Your task to perform on an android device: Open settings on Google Maps Image 0: 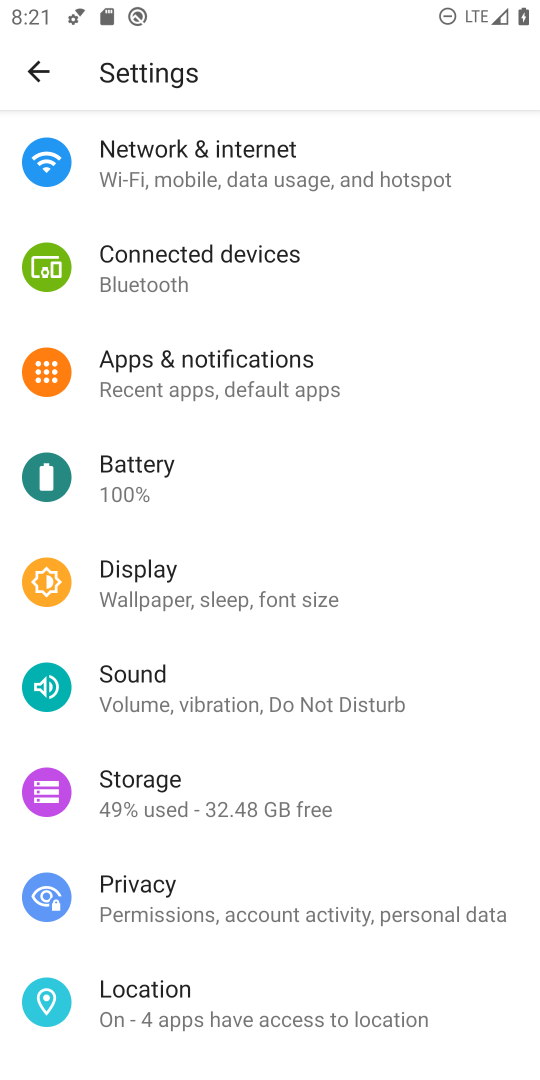
Step 0: press home button
Your task to perform on an android device: Open settings on Google Maps Image 1: 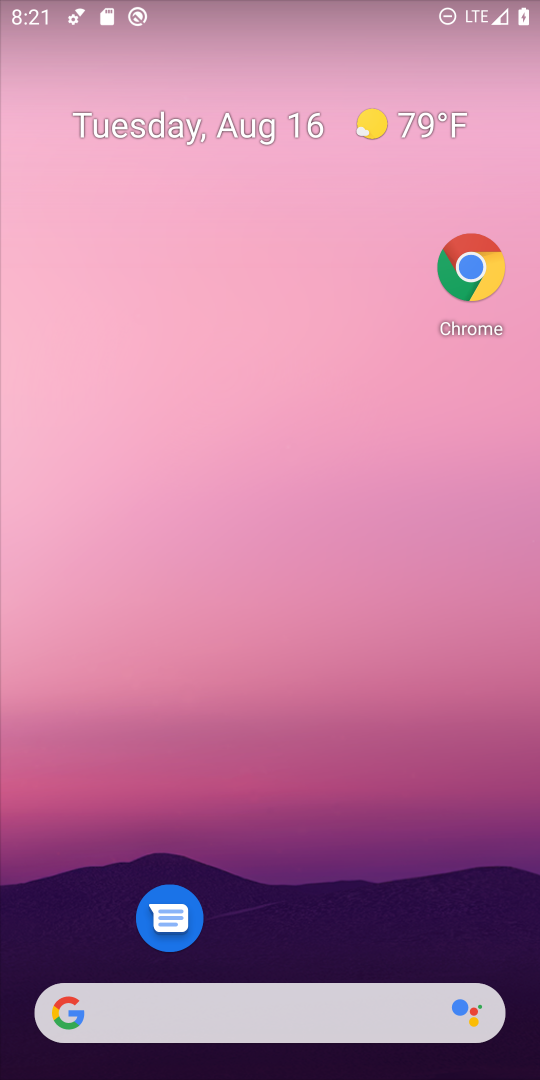
Step 1: drag from (374, 1046) to (351, 345)
Your task to perform on an android device: Open settings on Google Maps Image 2: 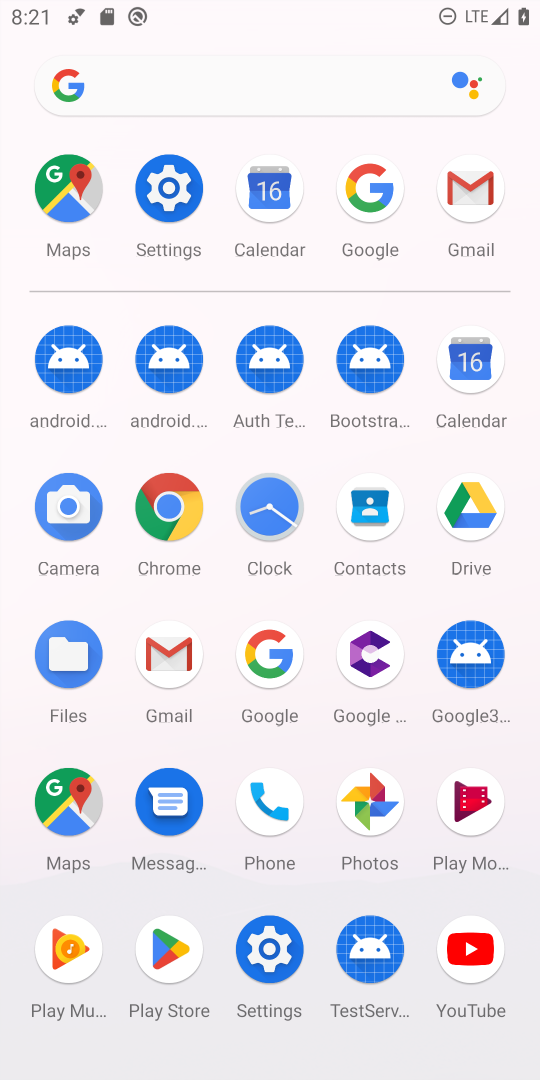
Step 2: click (71, 817)
Your task to perform on an android device: Open settings on Google Maps Image 3: 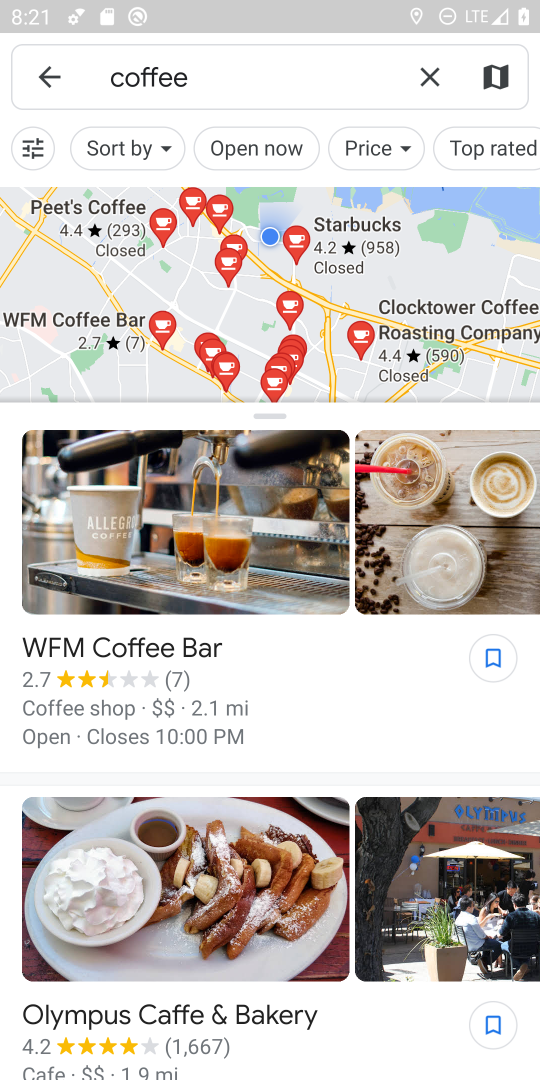
Step 3: click (55, 86)
Your task to perform on an android device: Open settings on Google Maps Image 4: 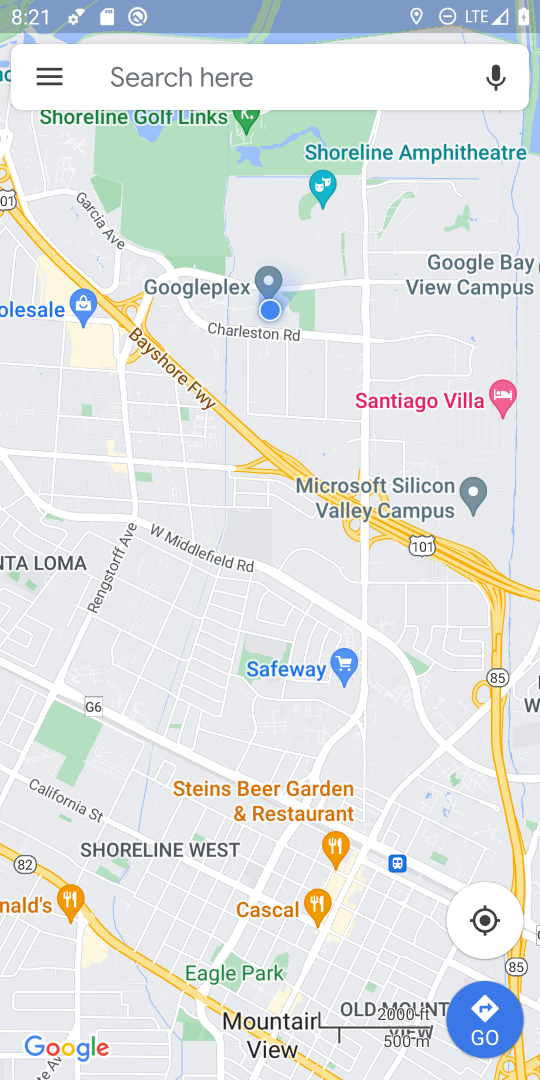
Step 4: click (55, 86)
Your task to perform on an android device: Open settings on Google Maps Image 5: 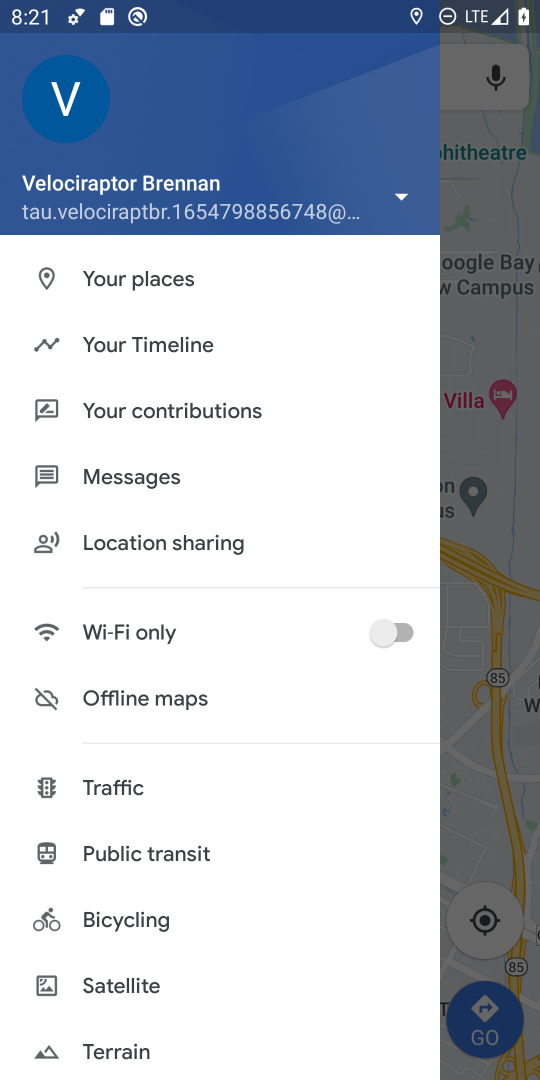
Step 5: drag from (207, 1009) to (250, 423)
Your task to perform on an android device: Open settings on Google Maps Image 6: 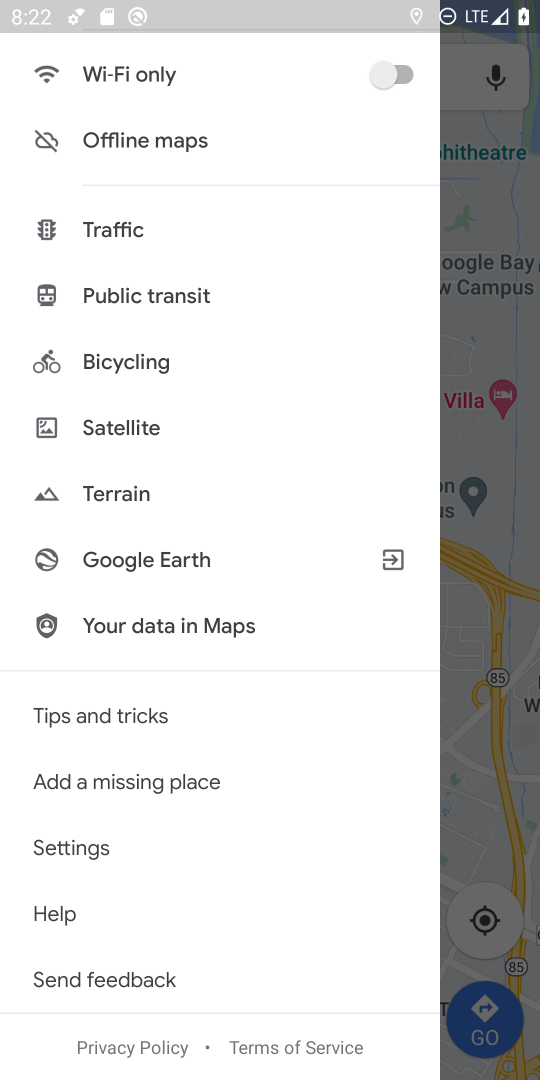
Step 6: click (36, 841)
Your task to perform on an android device: Open settings on Google Maps Image 7: 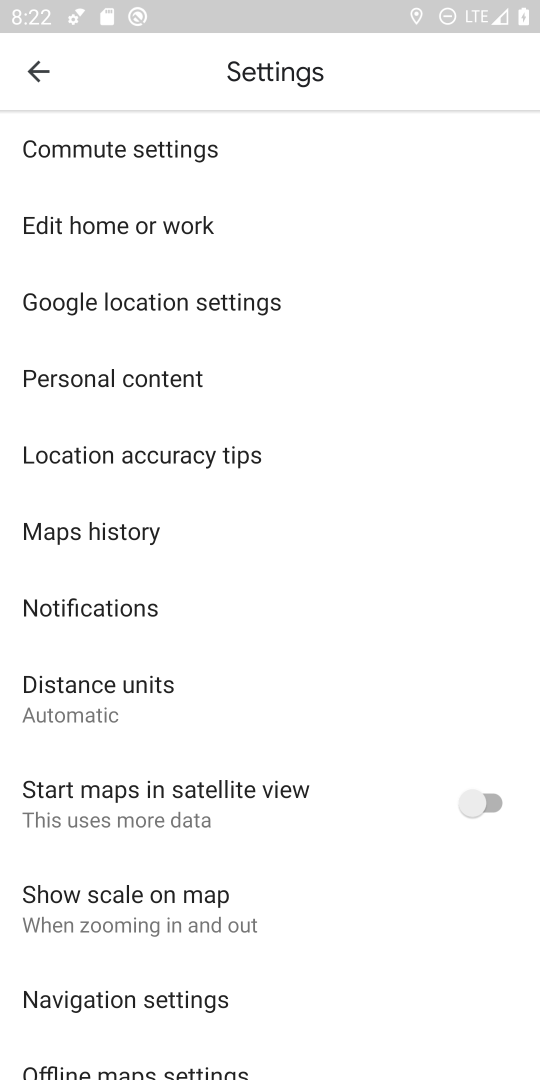
Step 7: task complete